Your task to perform on an android device: Turn on the flashlight Image 0: 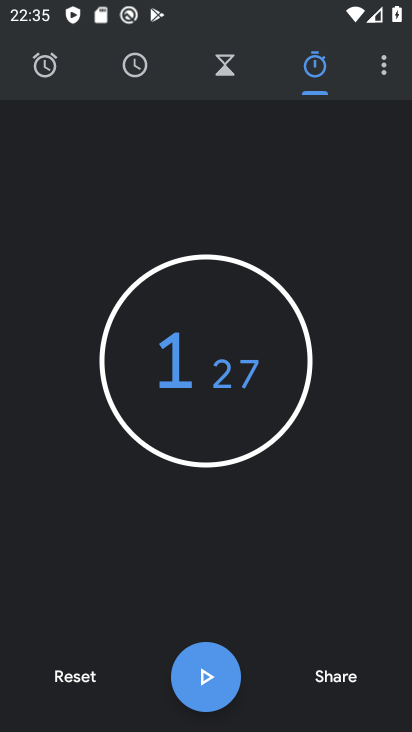
Step 0: press home button
Your task to perform on an android device: Turn on the flashlight Image 1: 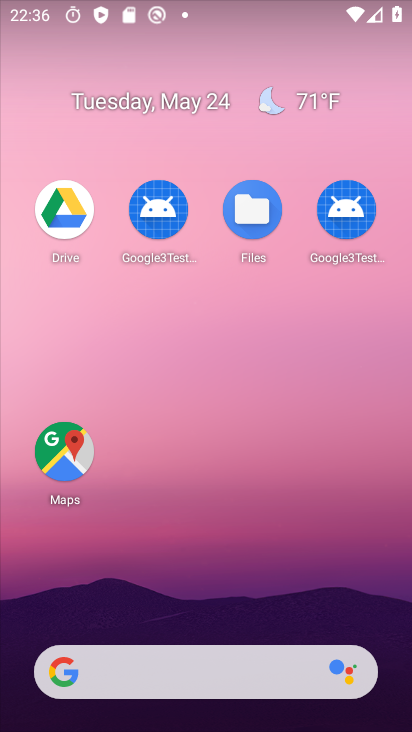
Step 1: task complete